Your task to perform on an android device: Go to network settings Image 0: 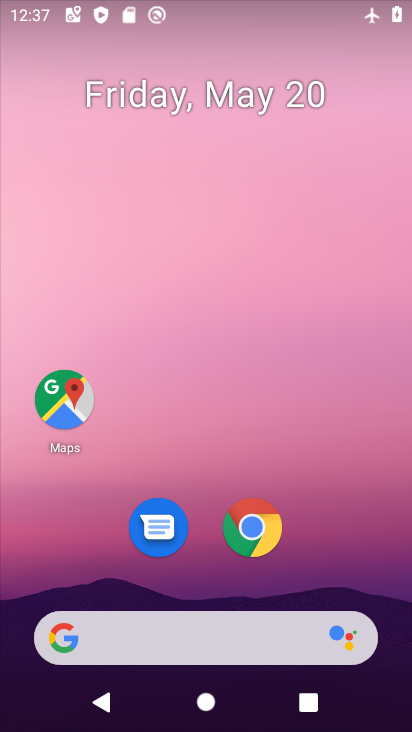
Step 0: drag from (280, 655) to (228, 267)
Your task to perform on an android device: Go to network settings Image 1: 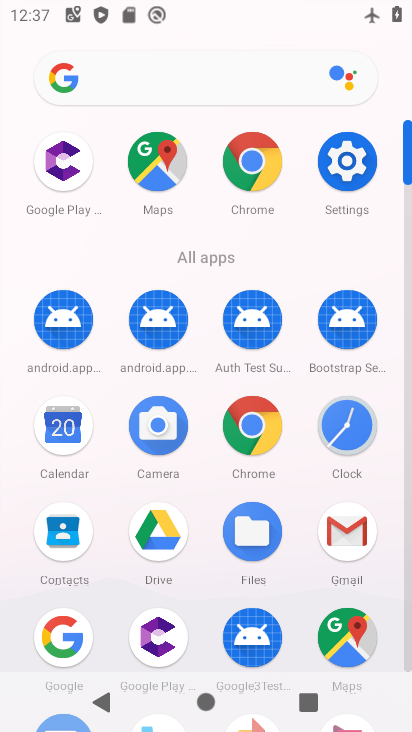
Step 1: click (348, 170)
Your task to perform on an android device: Go to network settings Image 2: 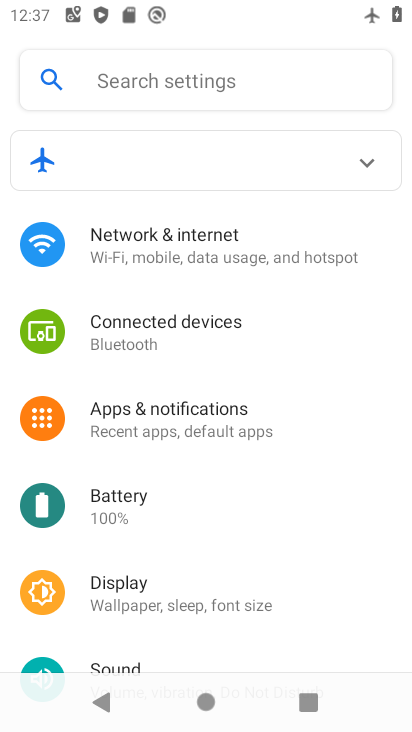
Step 2: click (342, 163)
Your task to perform on an android device: Go to network settings Image 3: 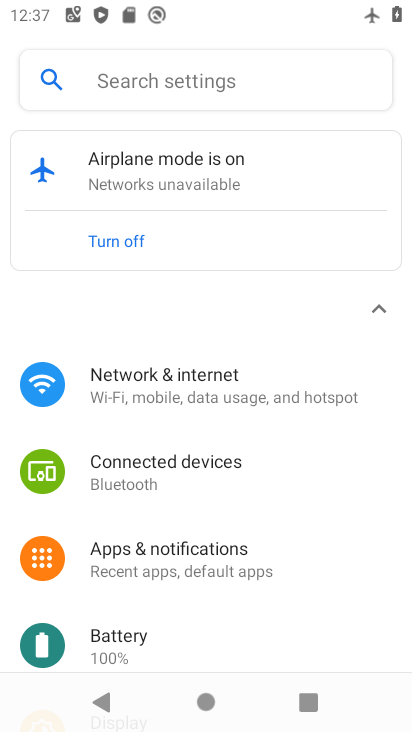
Step 3: click (171, 376)
Your task to perform on an android device: Go to network settings Image 4: 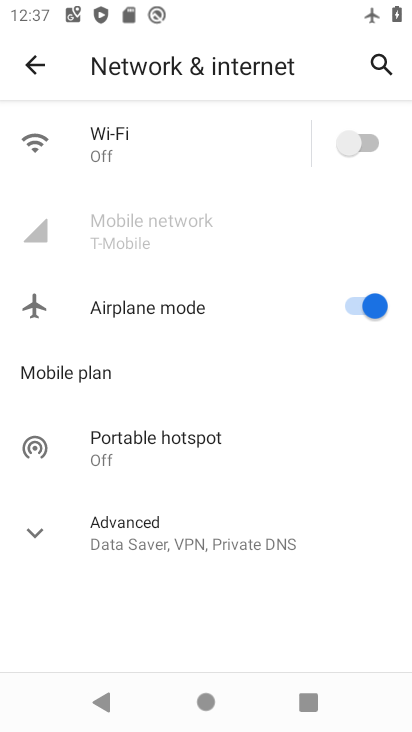
Step 4: task complete